Your task to perform on an android device: delete a single message in the gmail app Image 0: 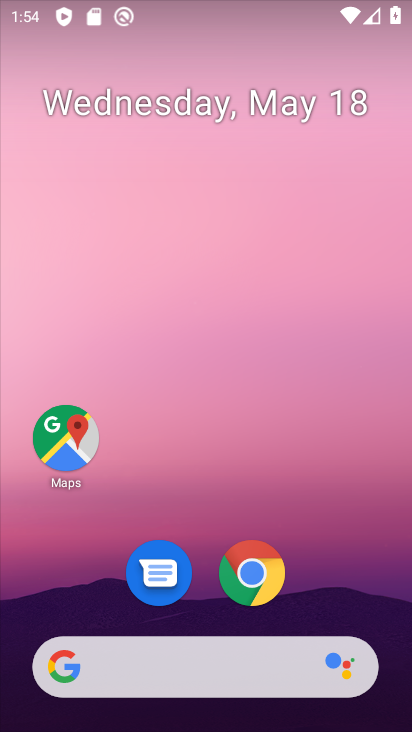
Step 0: click (333, 87)
Your task to perform on an android device: delete a single message in the gmail app Image 1: 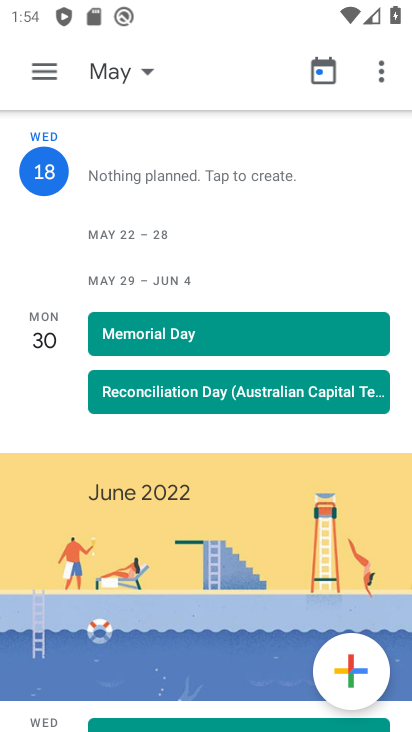
Step 1: press home button
Your task to perform on an android device: delete a single message in the gmail app Image 2: 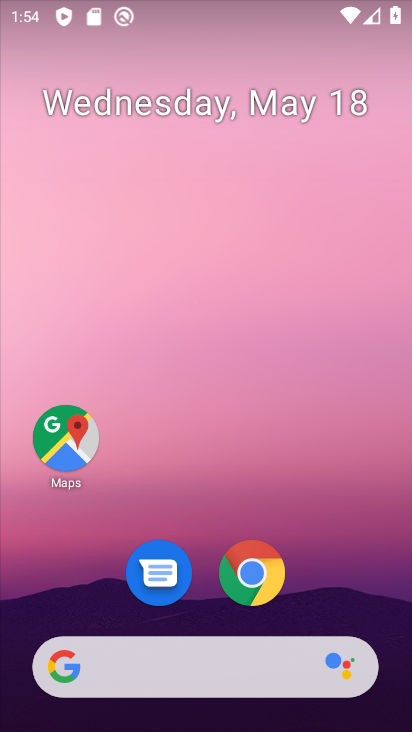
Step 2: drag from (333, 534) to (320, 146)
Your task to perform on an android device: delete a single message in the gmail app Image 3: 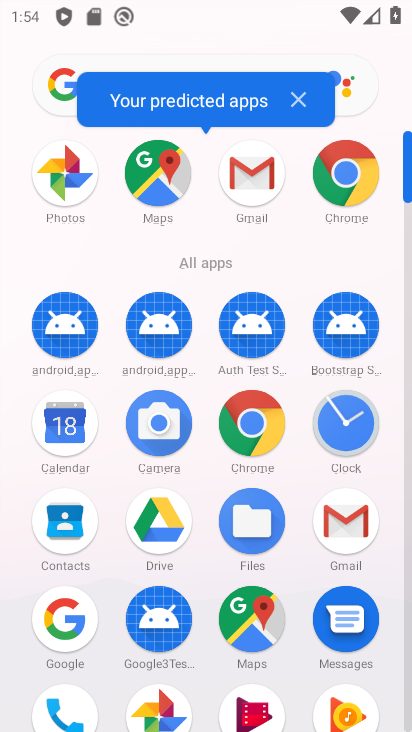
Step 3: click (261, 183)
Your task to perform on an android device: delete a single message in the gmail app Image 4: 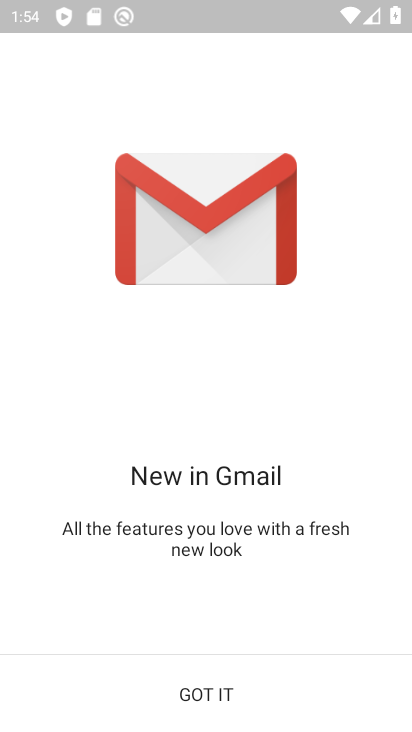
Step 4: click (200, 699)
Your task to perform on an android device: delete a single message in the gmail app Image 5: 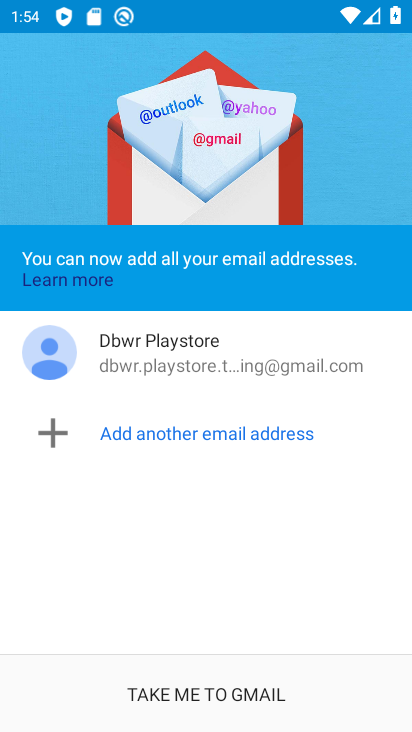
Step 5: click (203, 696)
Your task to perform on an android device: delete a single message in the gmail app Image 6: 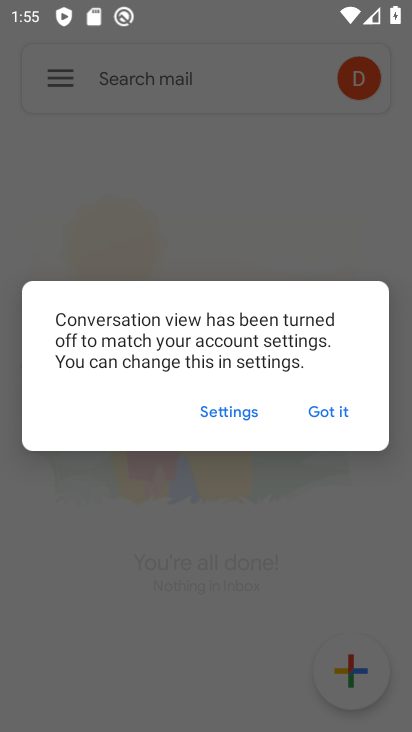
Step 6: click (331, 418)
Your task to perform on an android device: delete a single message in the gmail app Image 7: 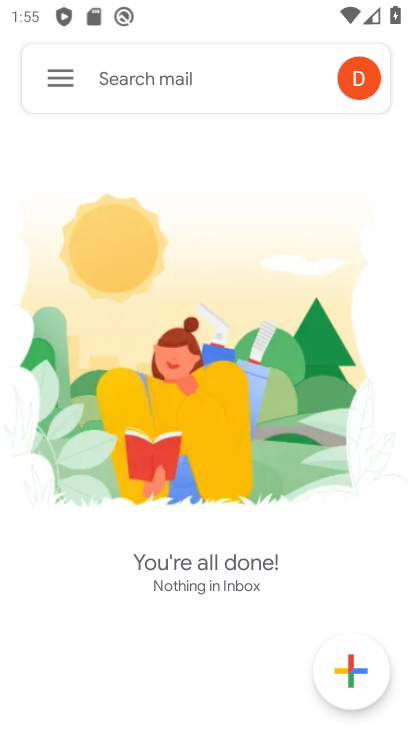
Step 7: task complete